Your task to perform on an android device: Open the web browser Image 0: 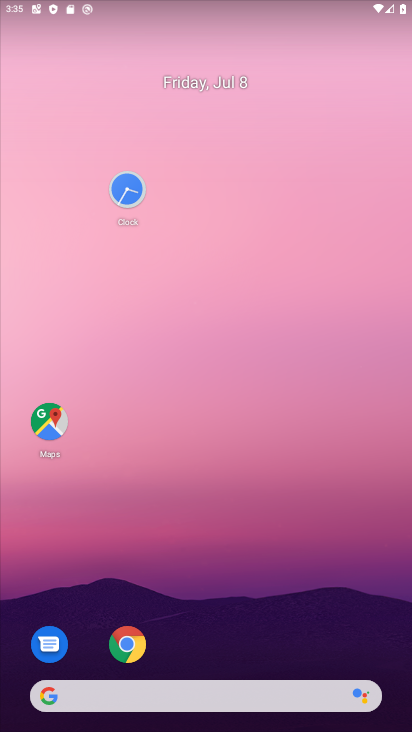
Step 0: drag from (297, 611) to (211, 305)
Your task to perform on an android device: Open the web browser Image 1: 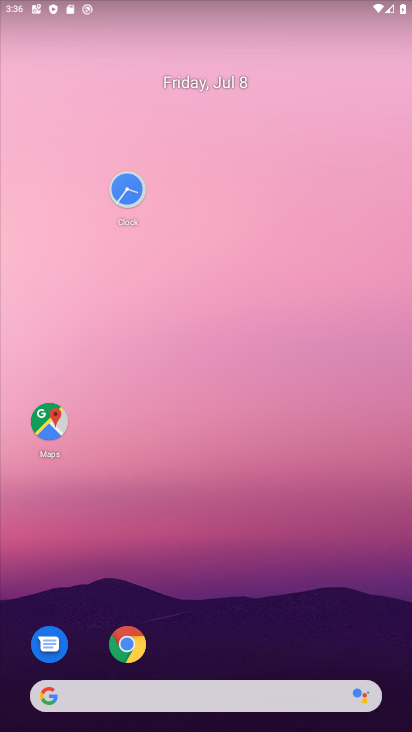
Step 1: drag from (148, 511) to (104, 391)
Your task to perform on an android device: Open the web browser Image 2: 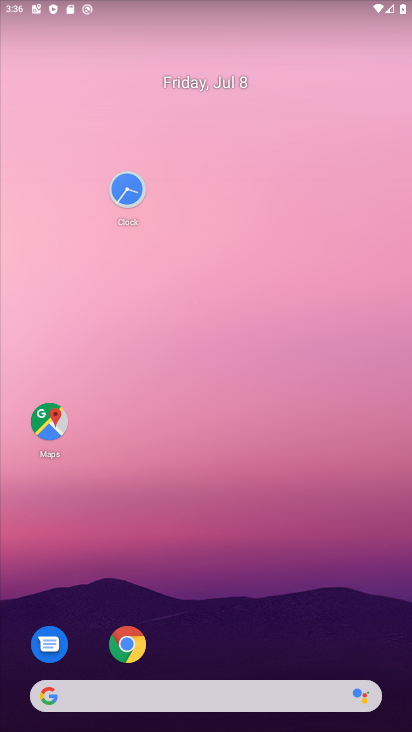
Step 2: drag from (216, 324) to (225, 84)
Your task to perform on an android device: Open the web browser Image 3: 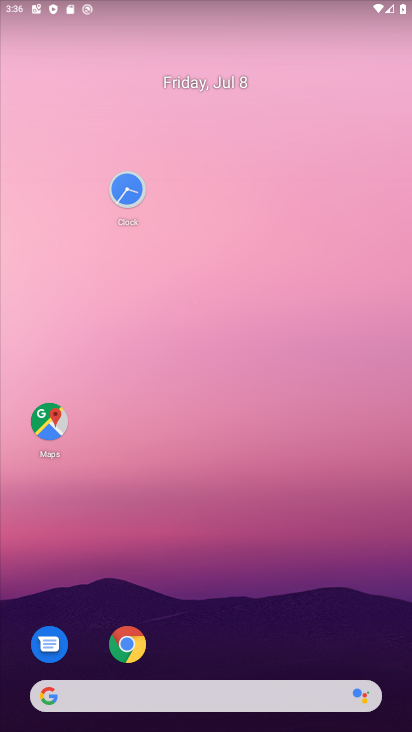
Step 3: drag from (239, 629) to (238, 31)
Your task to perform on an android device: Open the web browser Image 4: 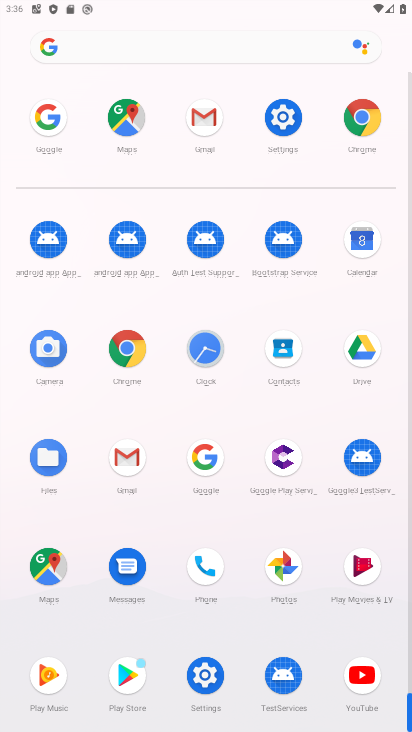
Step 4: click (367, 126)
Your task to perform on an android device: Open the web browser Image 5: 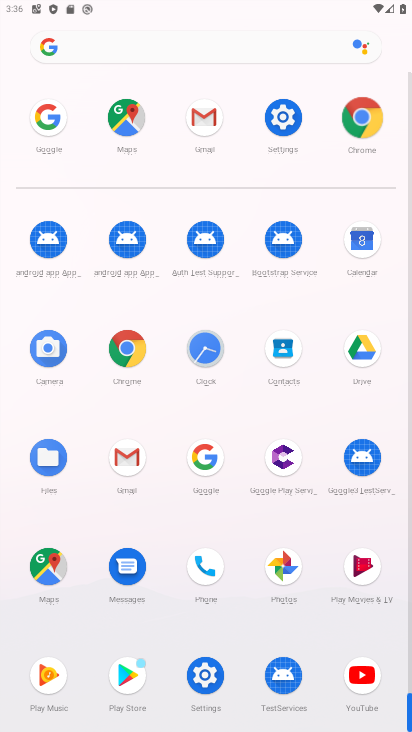
Step 5: click (363, 123)
Your task to perform on an android device: Open the web browser Image 6: 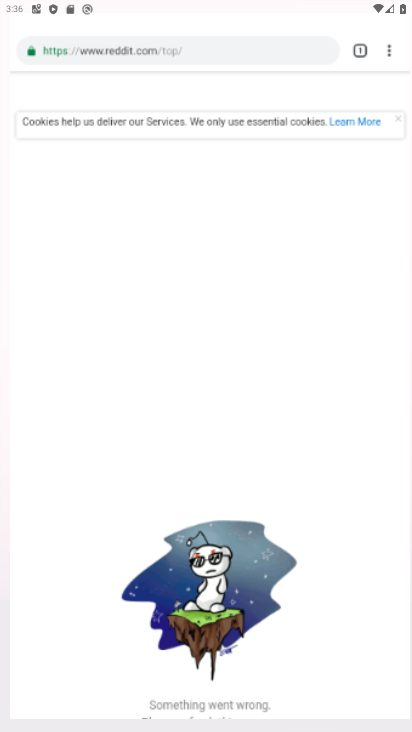
Step 6: click (363, 123)
Your task to perform on an android device: Open the web browser Image 7: 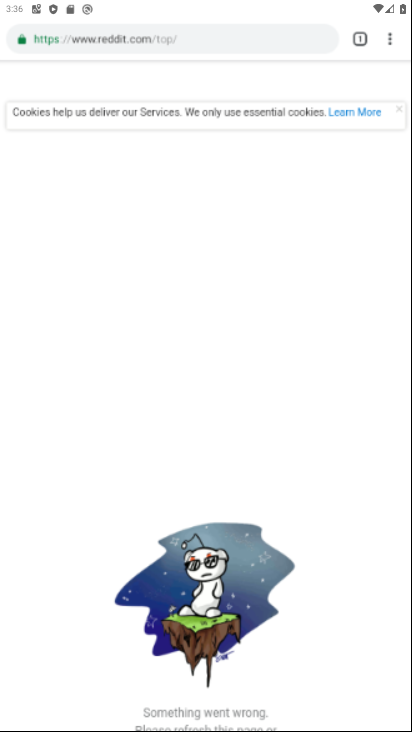
Step 7: click (362, 122)
Your task to perform on an android device: Open the web browser Image 8: 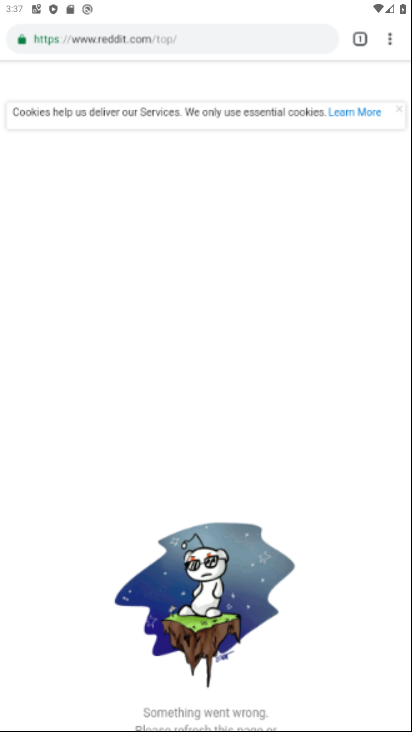
Step 8: click (369, 118)
Your task to perform on an android device: Open the web browser Image 9: 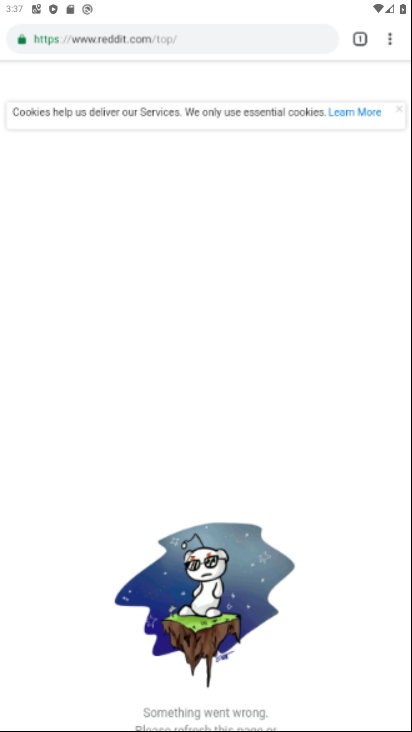
Step 9: click (372, 118)
Your task to perform on an android device: Open the web browser Image 10: 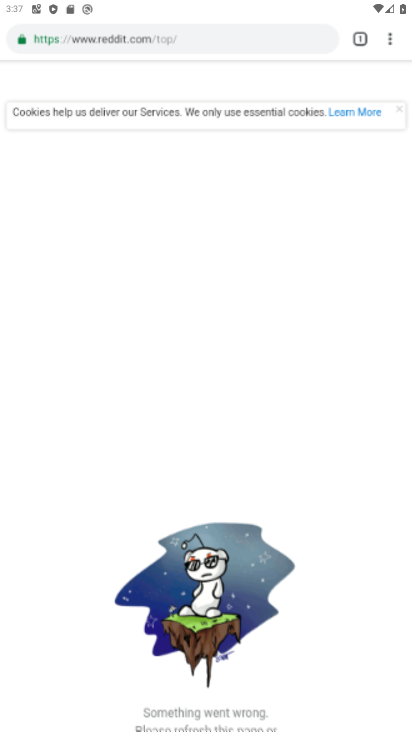
Step 10: click (371, 118)
Your task to perform on an android device: Open the web browser Image 11: 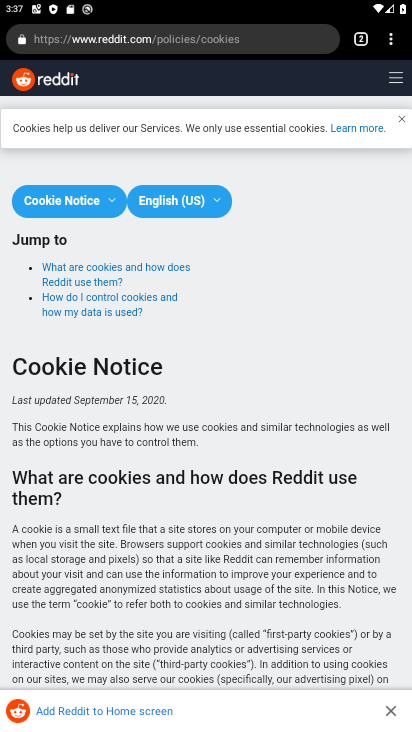
Step 11: click (389, 708)
Your task to perform on an android device: Open the web browser Image 12: 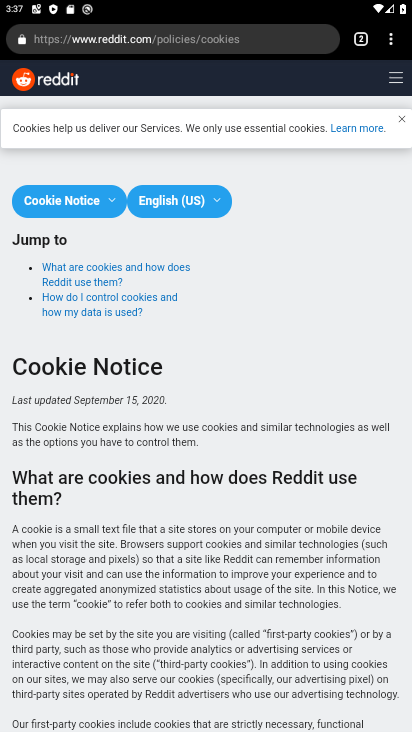
Step 12: click (386, 709)
Your task to perform on an android device: Open the web browser Image 13: 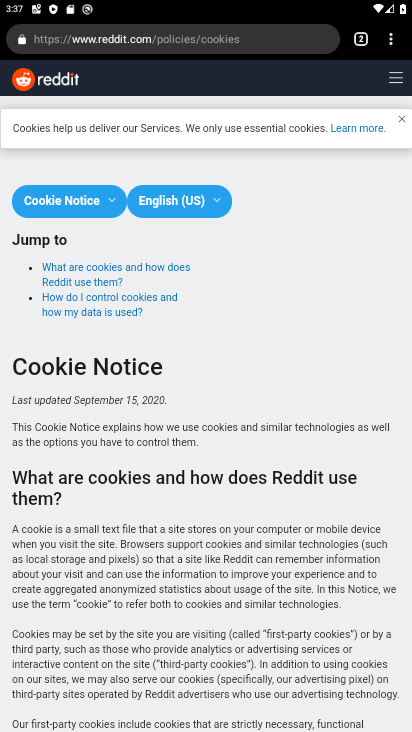
Step 13: click (386, 709)
Your task to perform on an android device: Open the web browser Image 14: 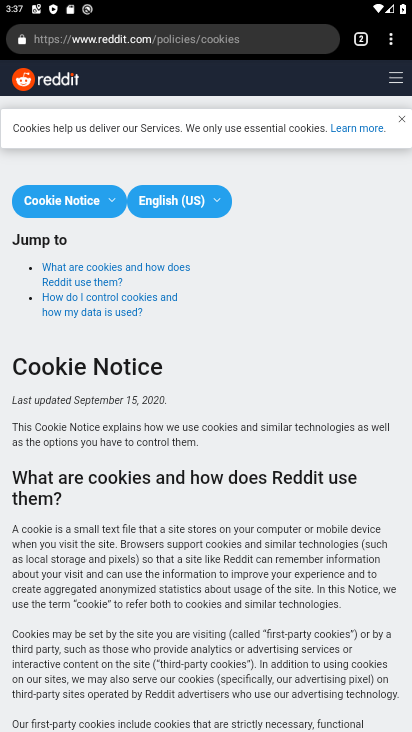
Step 14: click (389, 712)
Your task to perform on an android device: Open the web browser Image 15: 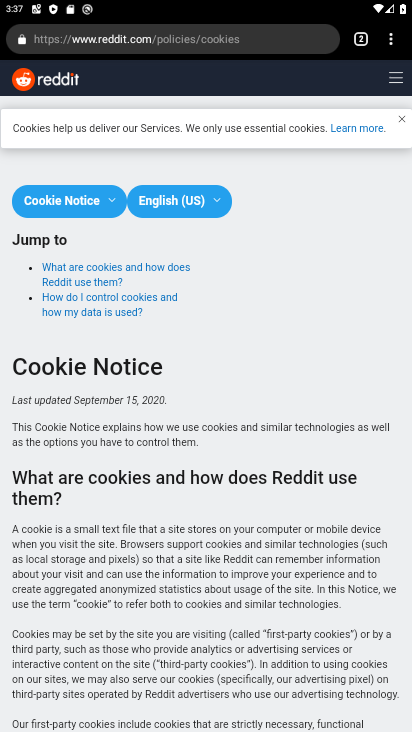
Step 15: click (389, 712)
Your task to perform on an android device: Open the web browser Image 16: 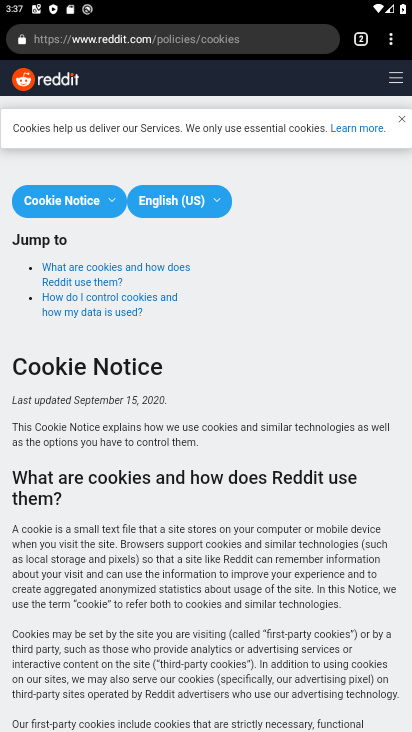
Step 16: press back button
Your task to perform on an android device: Open the web browser Image 17: 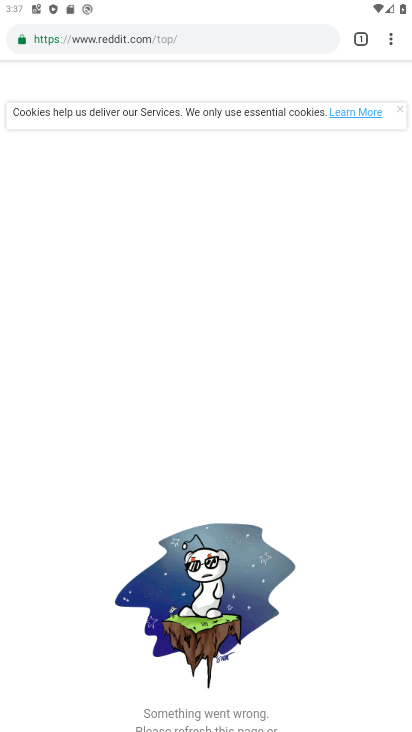
Step 17: click (198, 30)
Your task to perform on an android device: Open the web browser Image 18: 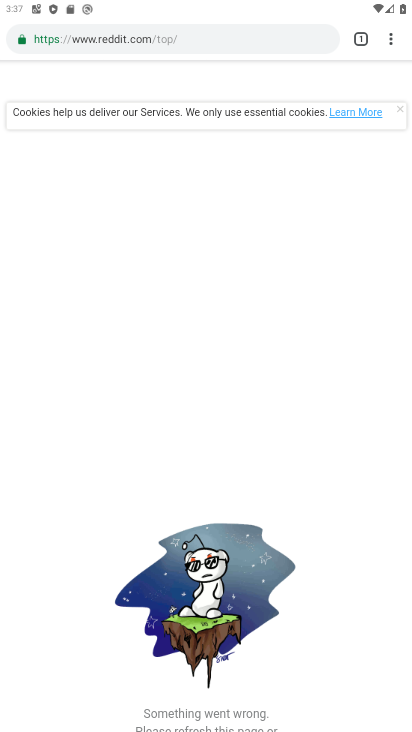
Step 18: click (202, 32)
Your task to perform on an android device: Open the web browser Image 19: 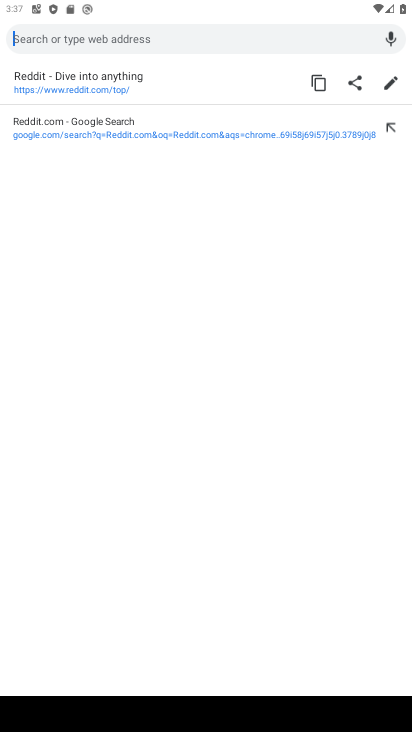
Step 19: task complete